Your task to perform on an android device: Empty the shopping cart on newegg. Add "razer thresher" to the cart on newegg Image 0: 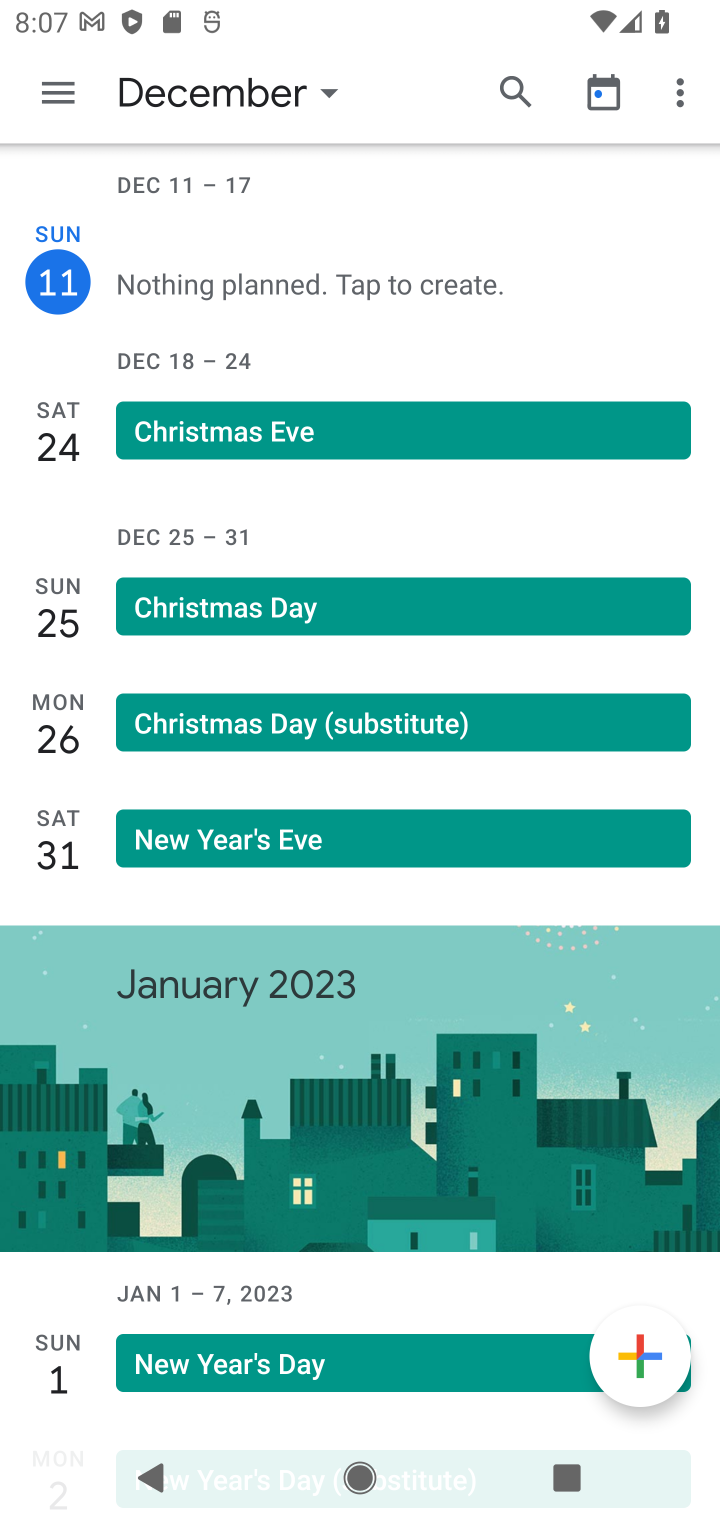
Step 0: press home button
Your task to perform on an android device: Empty the shopping cart on newegg. Add "razer thresher" to the cart on newegg Image 1: 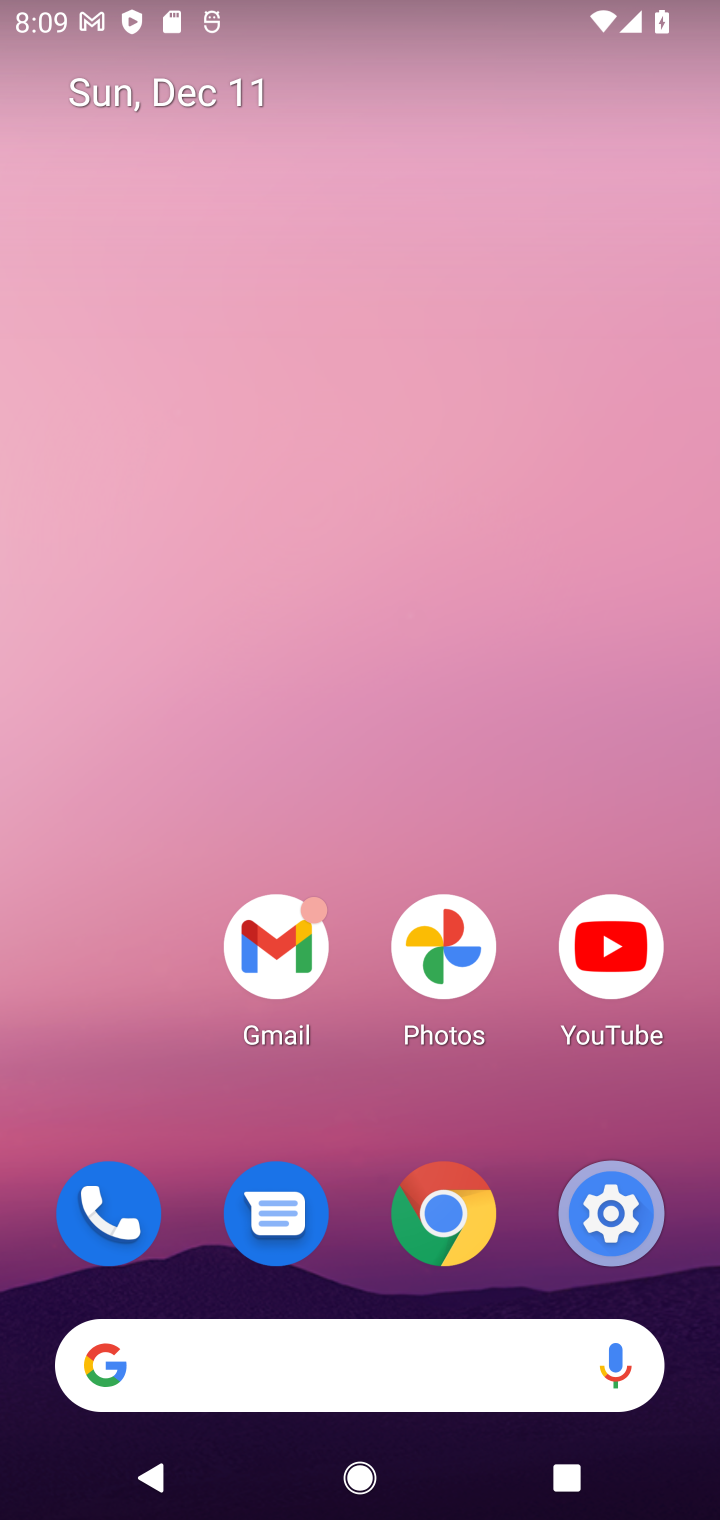
Step 1: click (373, 1385)
Your task to perform on an android device: Empty the shopping cart on newegg. Add "razer thresher" to the cart on newegg Image 2: 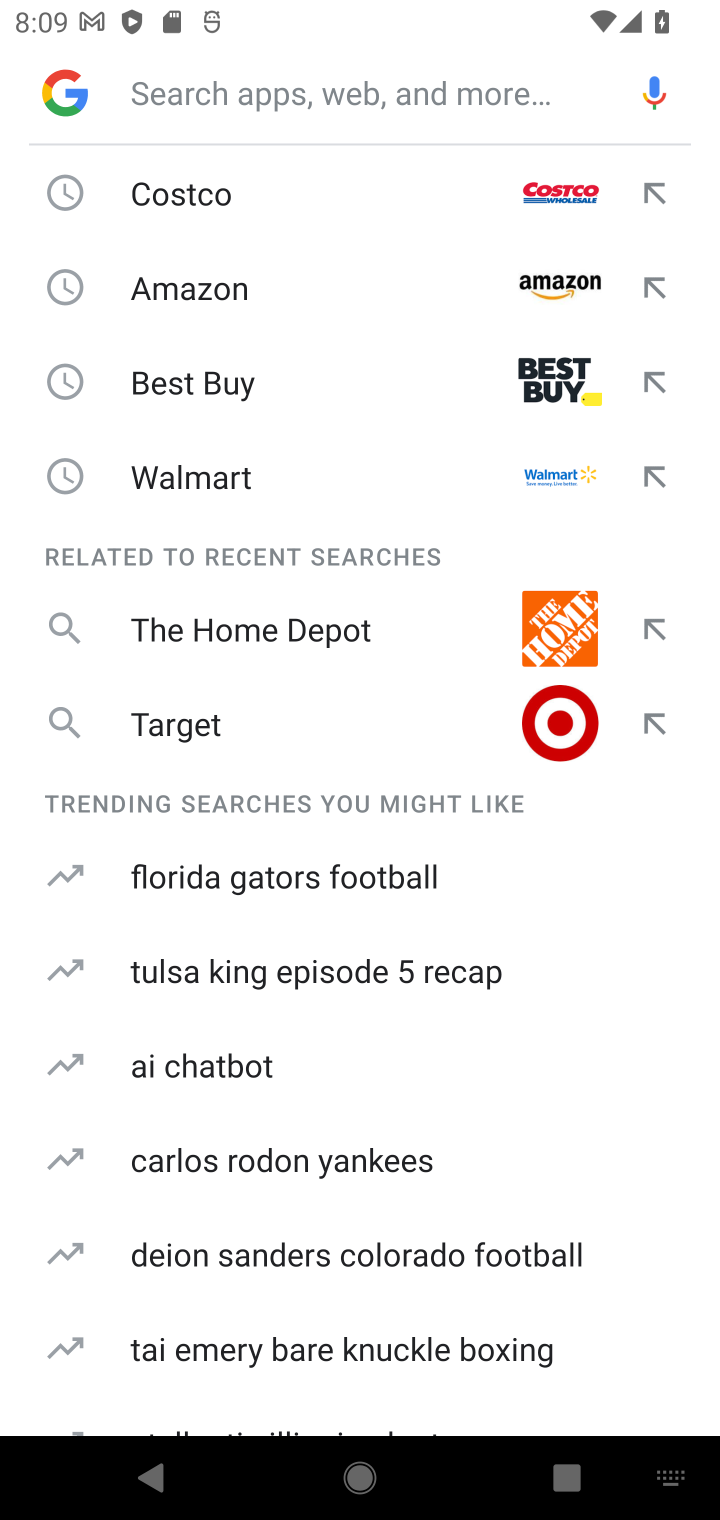
Step 2: type "newegg"
Your task to perform on an android device: Empty the shopping cart on newegg. Add "razer thresher" to the cart on newegg Image 3: 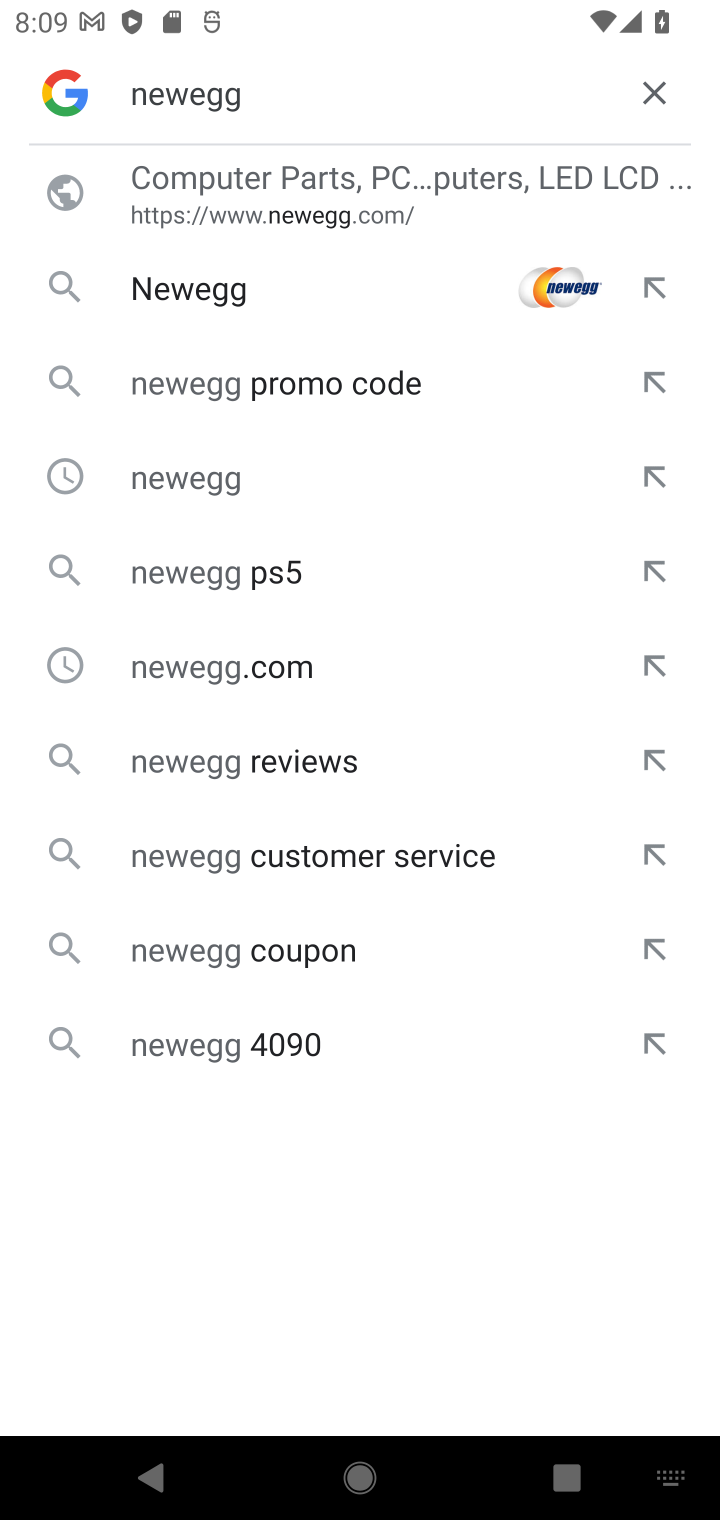
Step 3: click (368, 171)
Your task to perform on an android device: Empty the shopping cart on newegg. Add "razer thresher" to the cart on newegg Image 4: 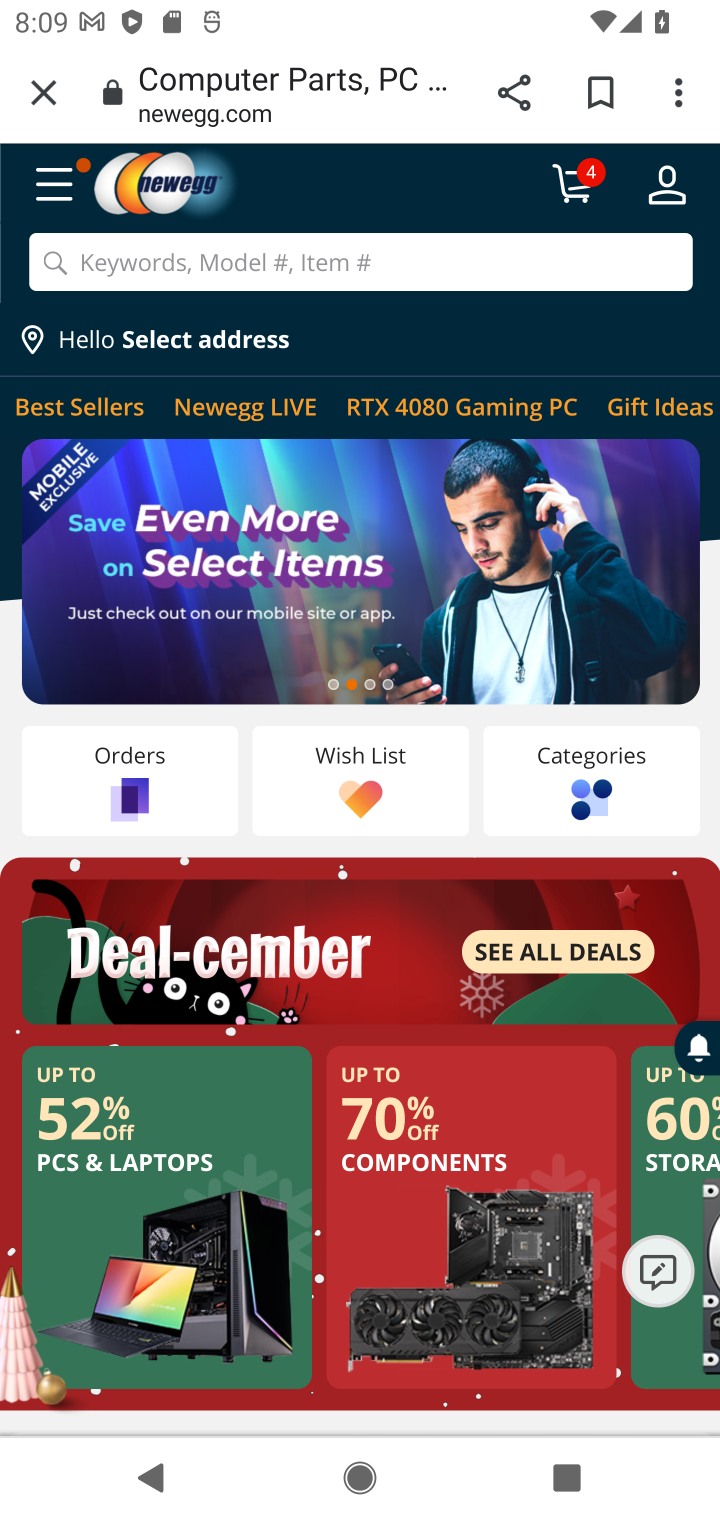
Step 4: click (384, 276)
Your task to perform on an android device: Empty the shopping cart on newegg. Add "razer thresher" to the cart on newegg Image 5: 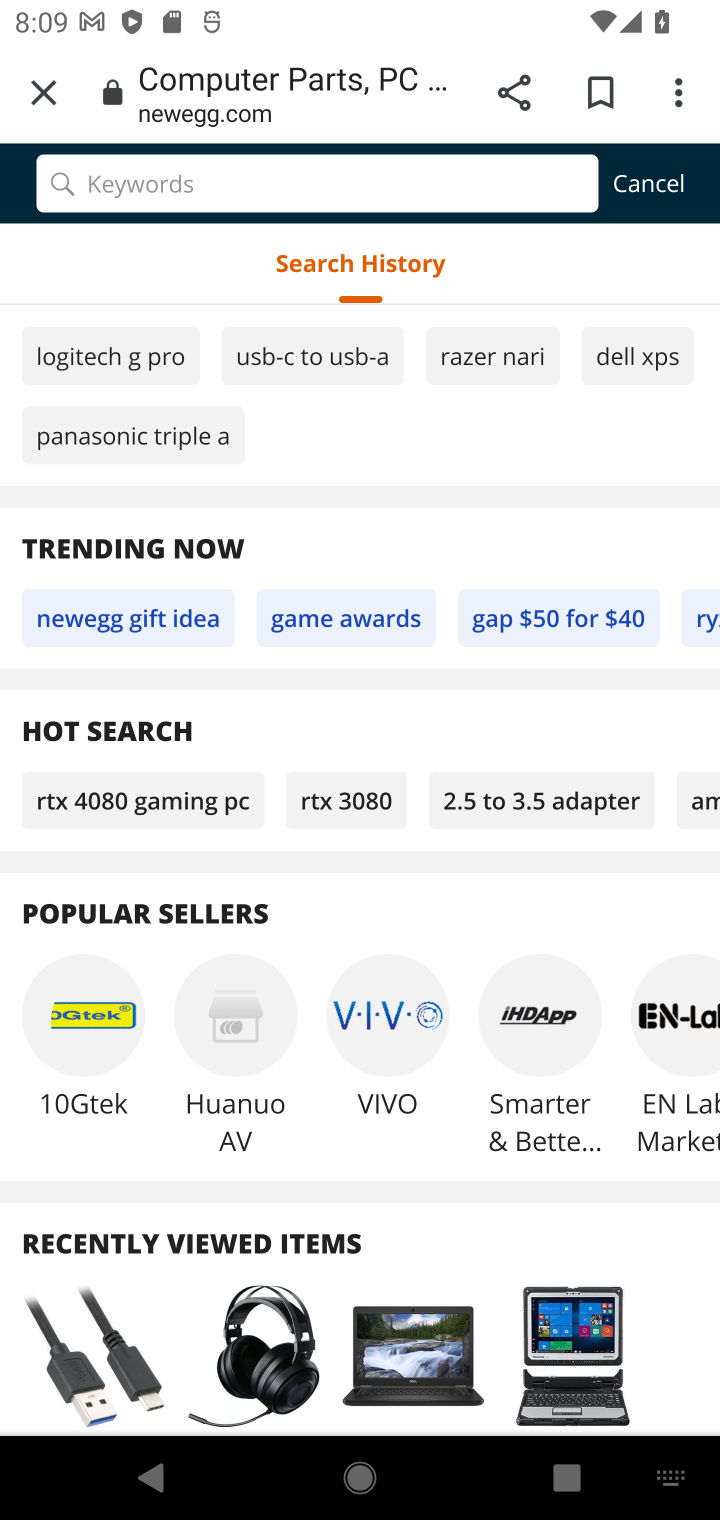
Step 5: type "razer thresher"
Your task to perform on an android device: Empty the shopping cart on newegg. Add "razer thresher" to the cart on newegg Image 6: 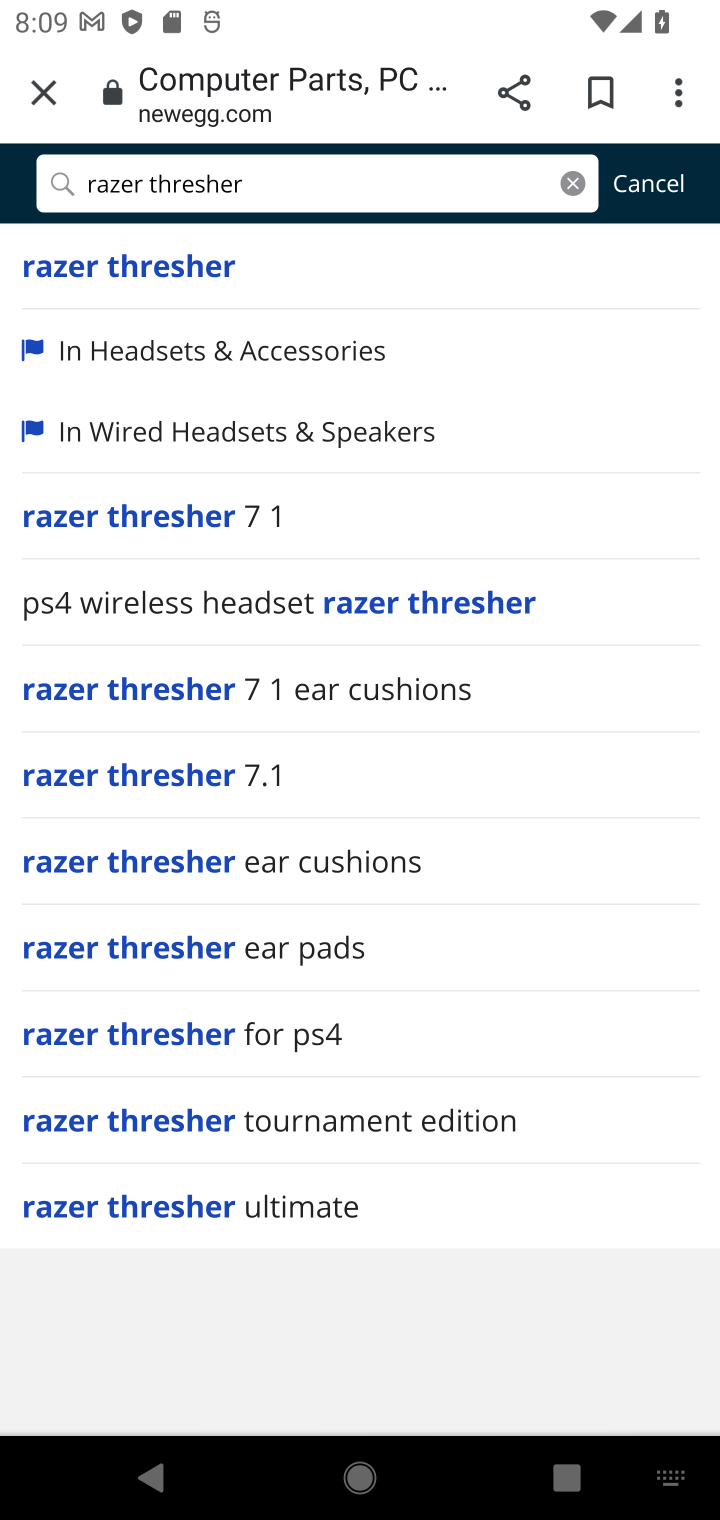
Step 6: click (198, 245)
Your task to perform on an android device: Empty the shopping cart on newegg. Add "razer thresher" to the cart on newegg Image 7: 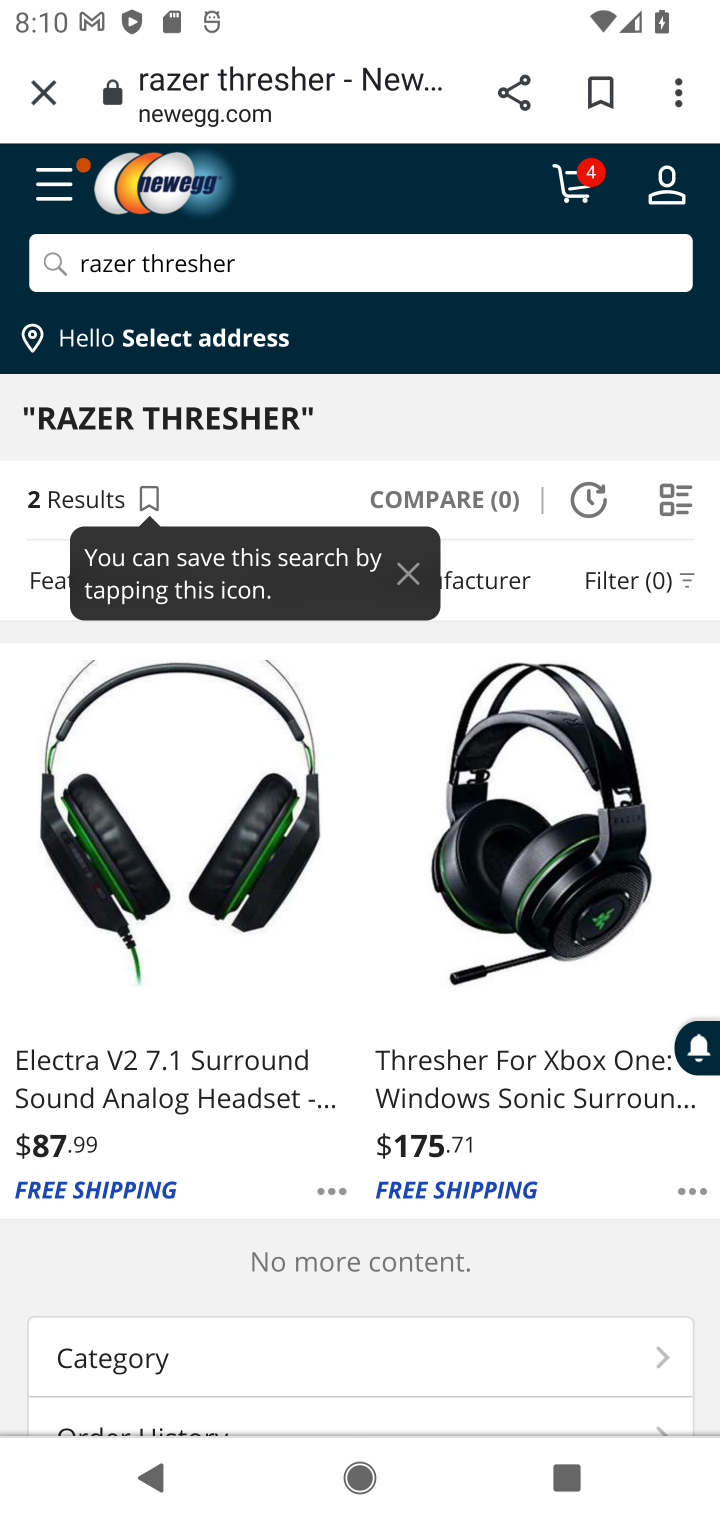
Step 7: click (163, 1065)
Your task to perform on an android device: Empty the shopping cart on newegg. Add "razer thresher" to the cart on newegg Image 8: 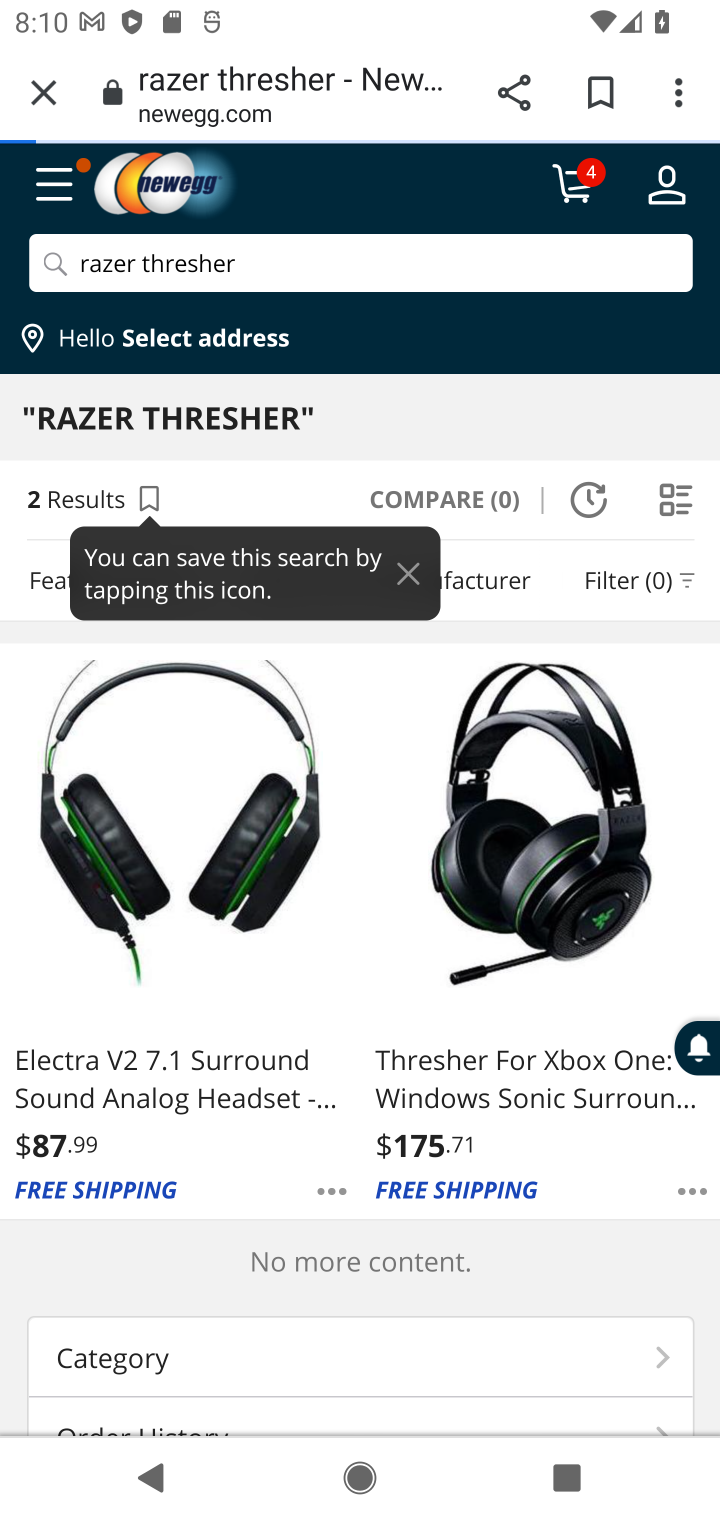
Step 8: task complete